Your task to perform on an android device: turn on showing notifications on the lock screen Image 0: 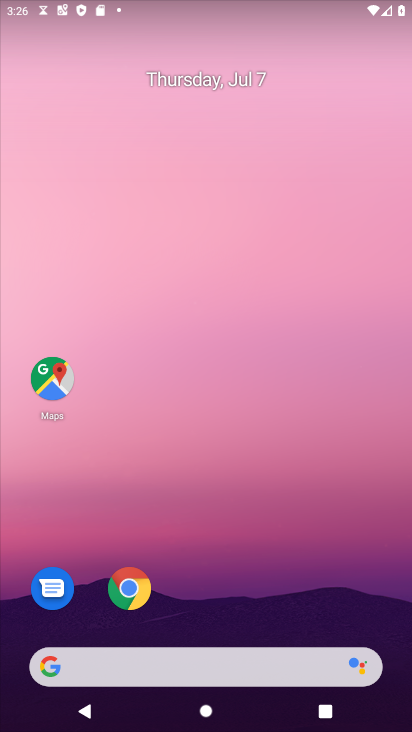
Step 0: drag from (231, 628) to (235, 49)
Your task to perform on an android device: turn on showing notifications on the lock screen Image 1: 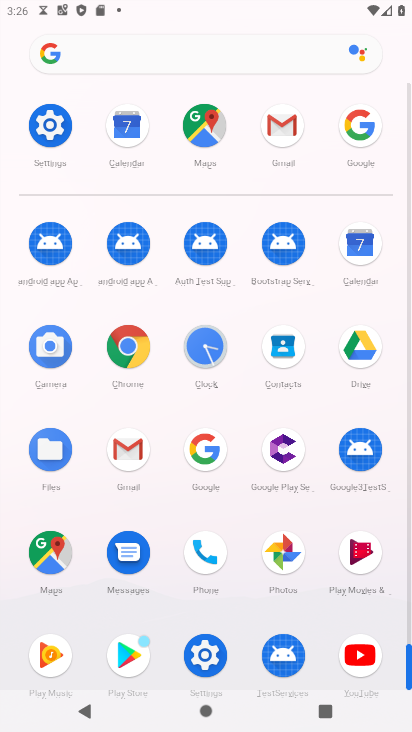
Step 1: click (49, 126)
Your task to perform on an android device: turn on showing notifications on the lock screen Image 2: 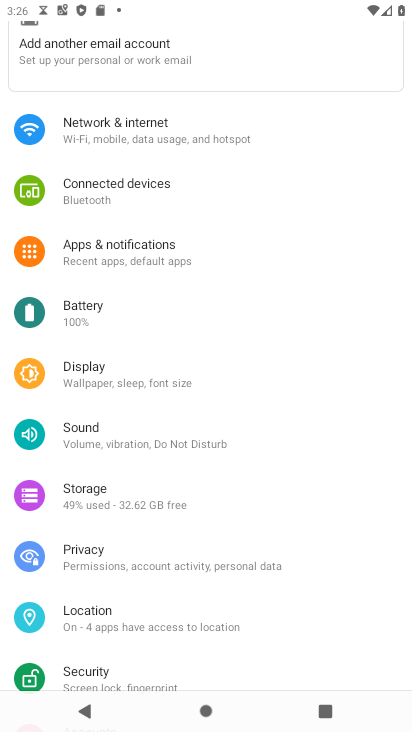
Step 2: drag from (124, 477) to (173, 394)
Your task to perform on an android device: turn on showing notifications on the lock screen Image 3: 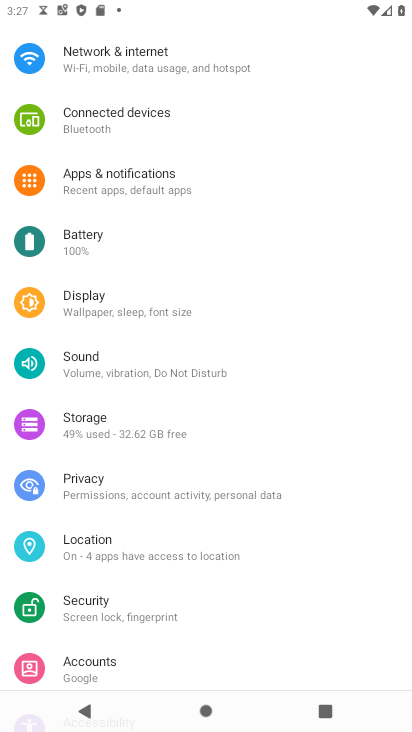
Step 3: click (160, 176)
Your task to perform on an android device: turn on showing notifications on the lock screen Image 4: 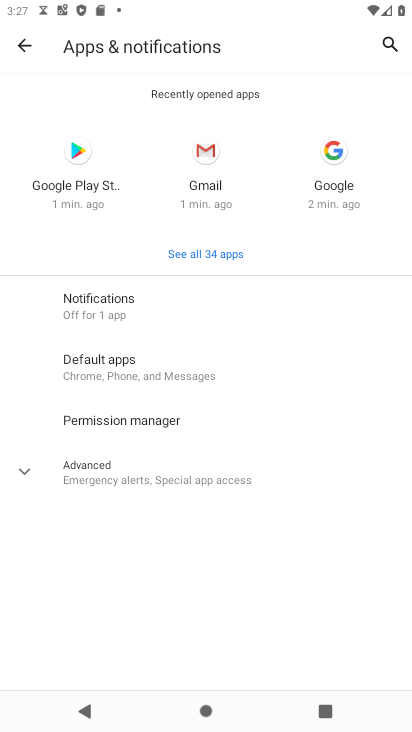
Step 4: click (120, 299)
Your task to perform on an android device: turn on showing notifications on the lock screen Image 5: 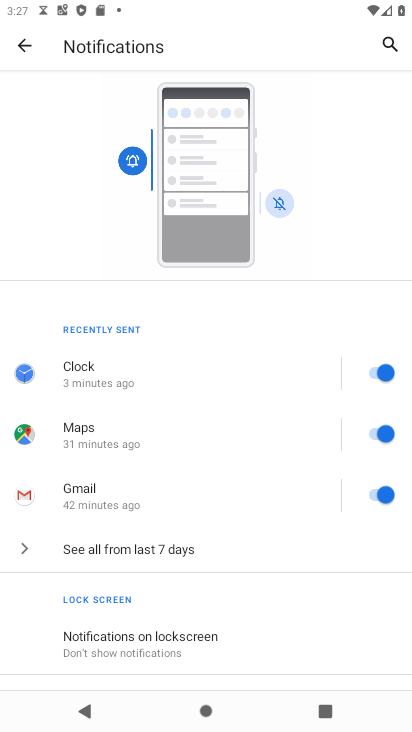
Step 5: click (118, 635)
Your task to perform on an android device: turn on showing notifications on the lock screen Image 6: 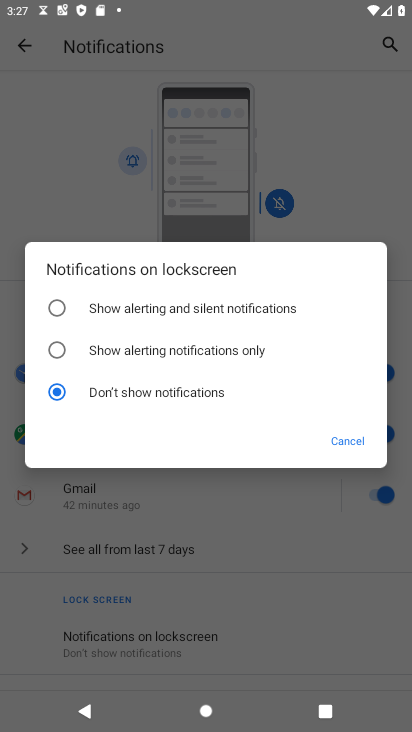
Step 6: click (59, 306)
Your task to perform on an android device: turn on showing notifications on the lock screen Image 7: 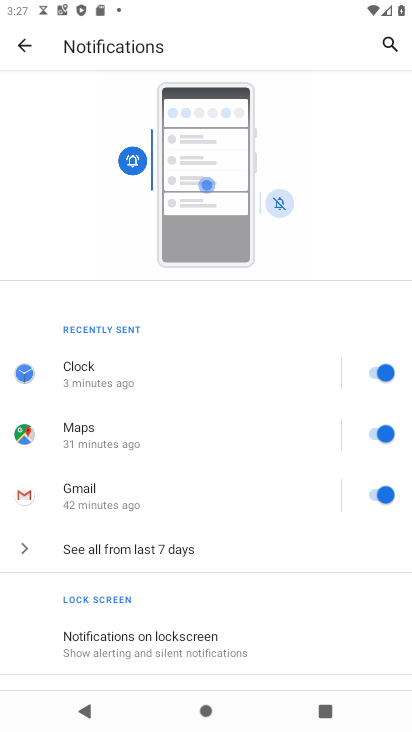
Step 7: task complete